Your task to perform on an android device: open device folders in google photos Image 0: 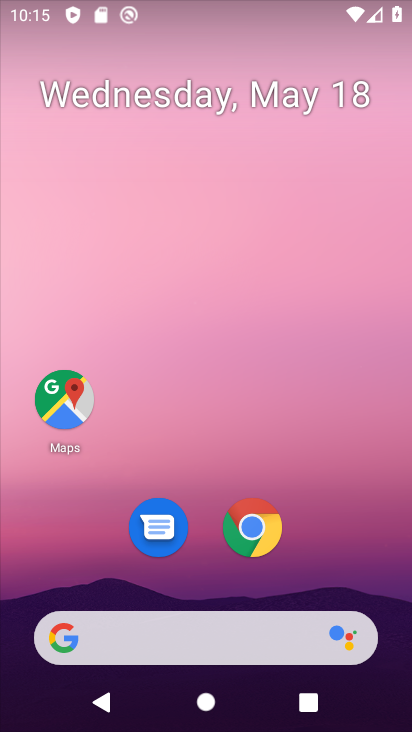
Step 0: drag from (331, 566) to (275, 45)
Your task to perform on an android device: open device folders in google photos Image 1: 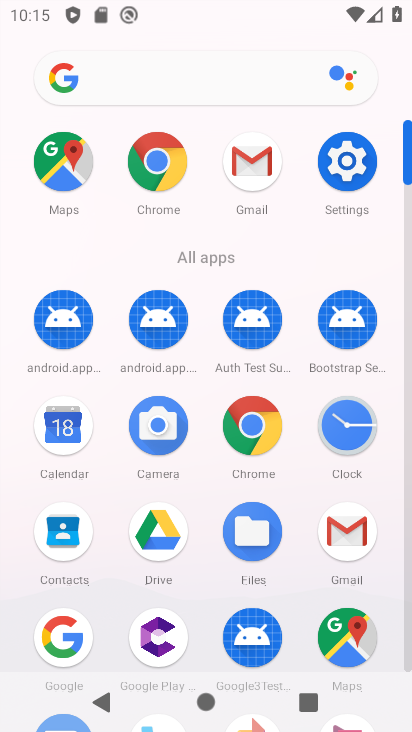
Step 1: click (407, 638)
Your task to perform on an android device: open device folders in google photos Image 2: 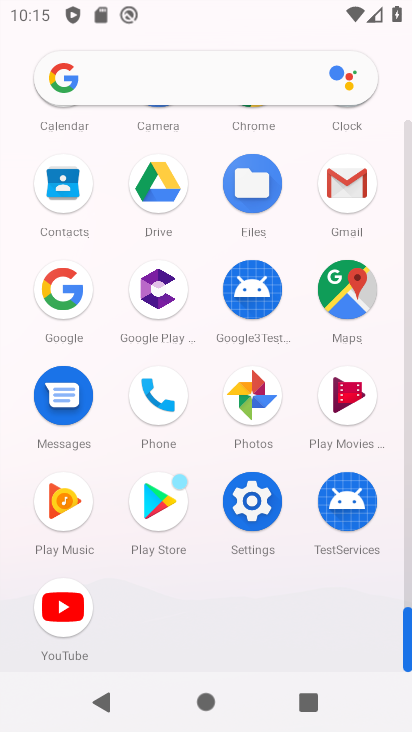
Step 2: click (244, 396)
Your task to perform on an android device: open device folders in google photos Image 3: 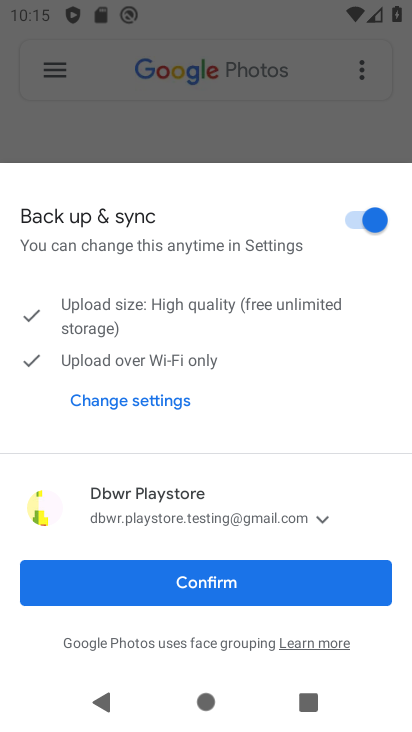
Step 3: click (107, 585)
Your task to perform on an android device: open device folders in google photos Image 4: 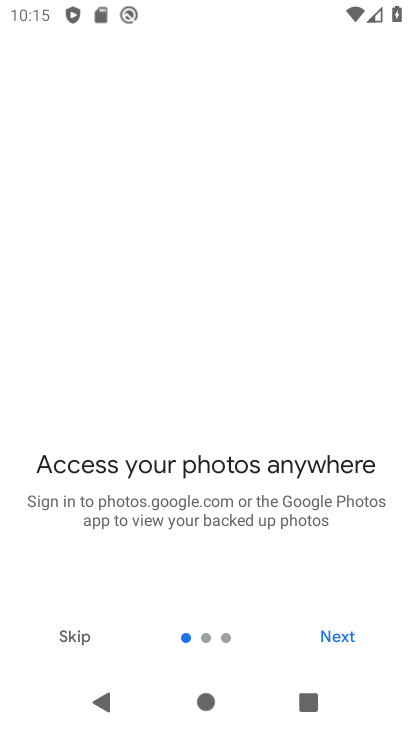
Step 4: click (61, 633)
Your task to perform on an android device: open device folders in google photos Image 5: 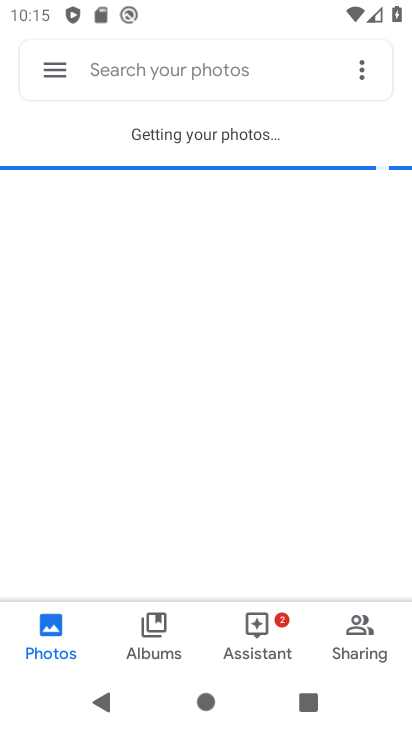
Step 5: click (35, 86)
Your task to perform on an android device: open device folders in google photos Image 6: 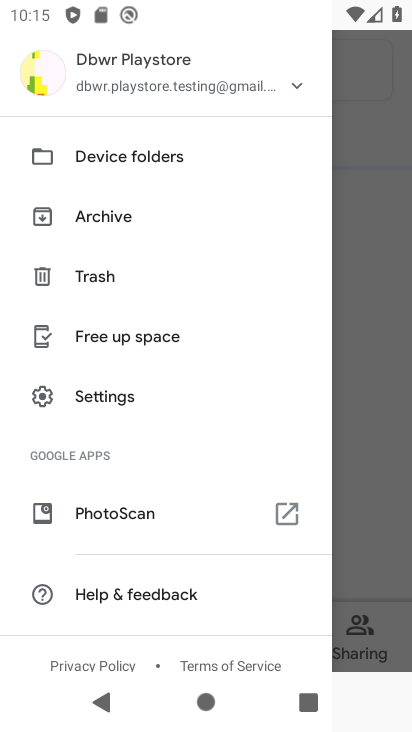
Step 6: click (100, 142)
Your task to perform on an android device: open device folders in google photos Image 7: 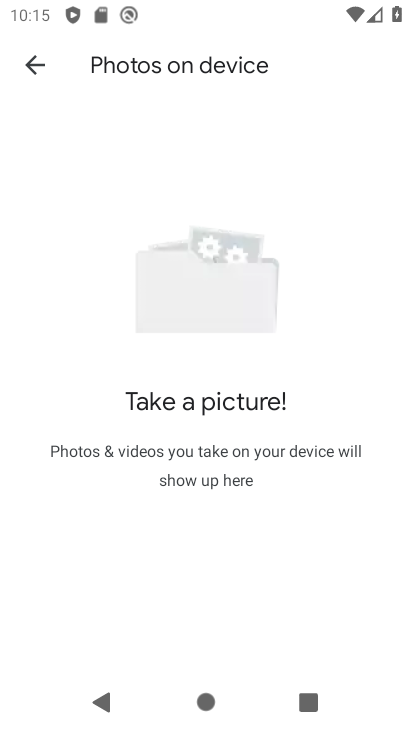
Step 7: task complete